Your task to perform on an android device: What's the weather? Image 0: 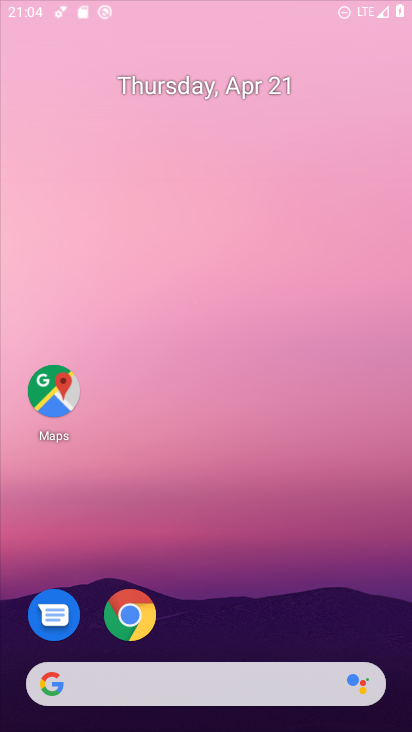
Step 0: click (181, 111)
Your task to perform on an android device: What's the weather? Image 1: 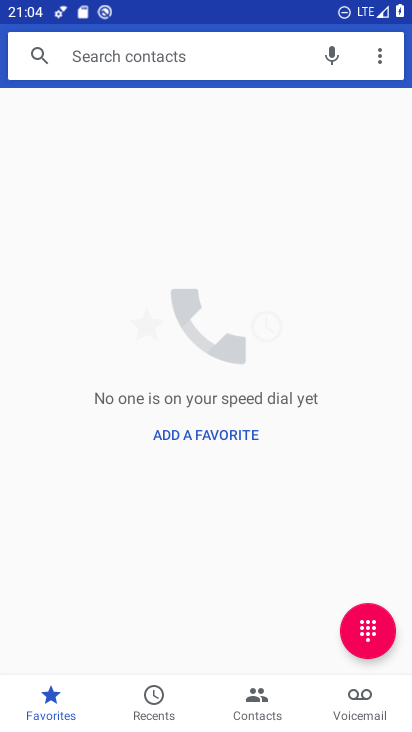
Step 1: press home button
Your task to perform on an android device: What's the weather? Image 2: 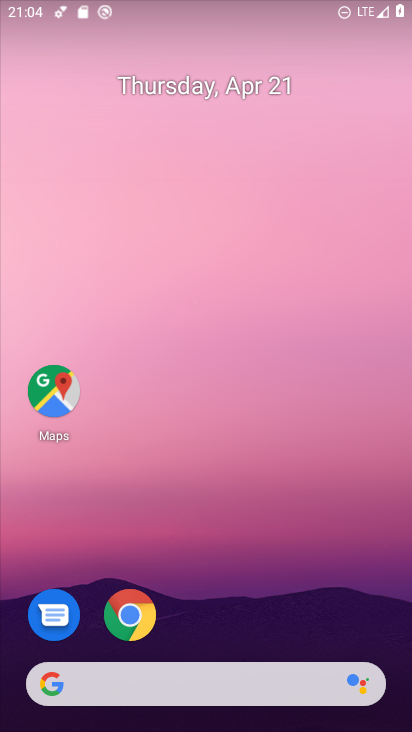
Step 2: drag from (212, 636) to (195, 238)
Your task to perform on an android device: What's the weather? Image 3: 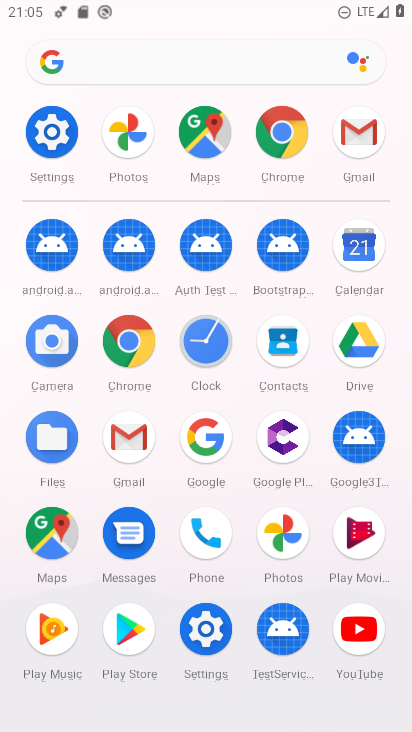
Step 3: click (126, 340)
Your task to perform on an android device: What's the weather? Image 4: 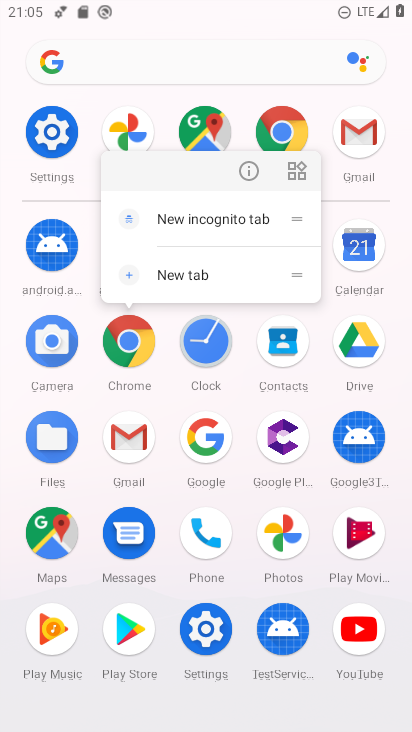
Step 4: click (247, 180)
Your task to perform on an android device: What's the weather? Image 5: 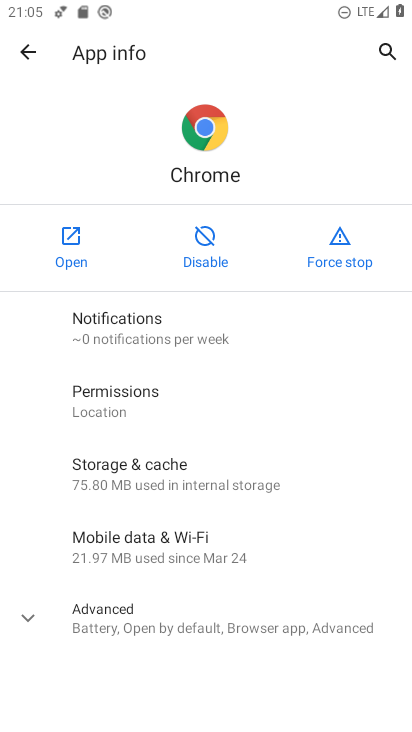
Step 5: click (81, 255)
Your task to perform on an android device: What's the weather? Image 6: 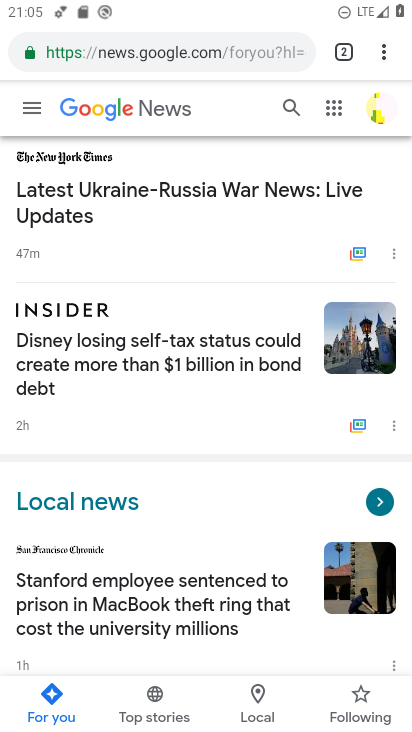
Step 6: click (203, 60)
Your task to perform on an android device: What's the weather? Image 7: 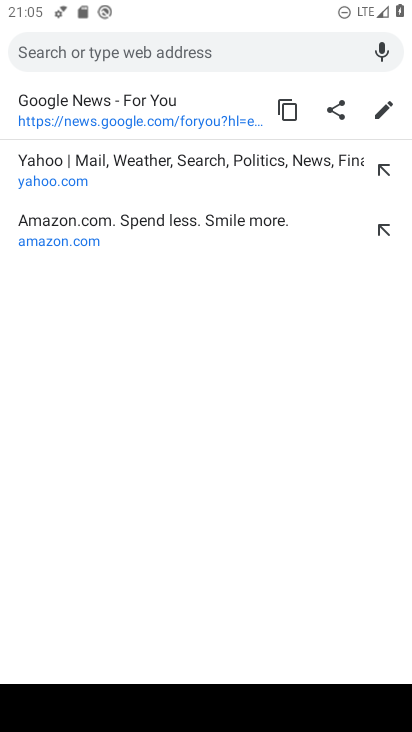
Step 7: type "weather "
Your task to perform on an android device: What's the weather? Image 8: 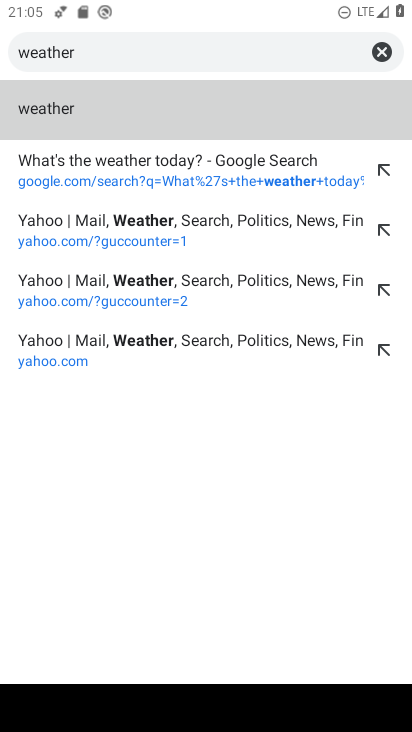
Step 8: click (56, 102)
Your task to perform on an android device: What's the weather? Image 9: 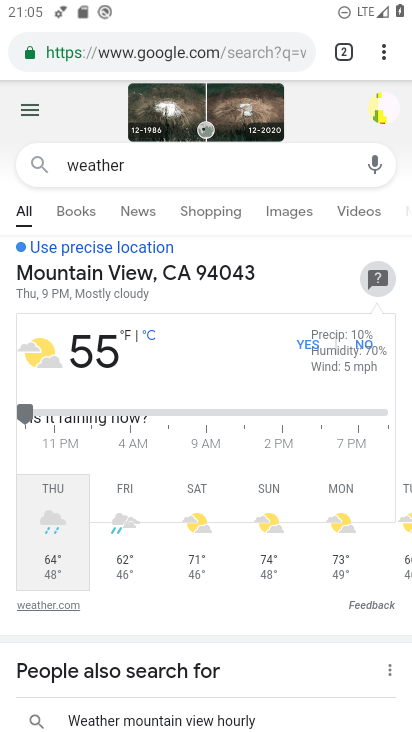
Step 9: task complete